Your task to perform on an android device: Open display settings Image 0: 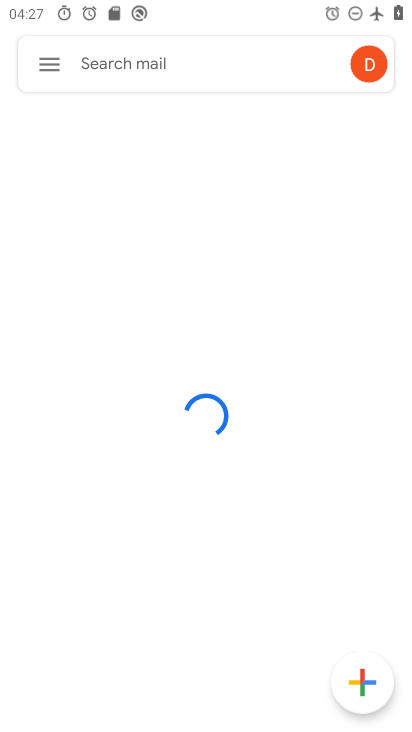
Step 0: press home button
Your task to perform on an android device: Open display settings Image 1: 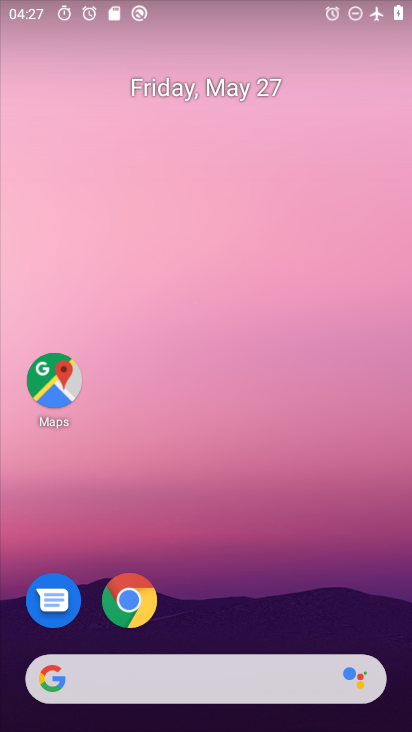
Step 1: drag from (204, 721) to (207, 196)
Your task to perform on an android device: Open display settings Image 2: 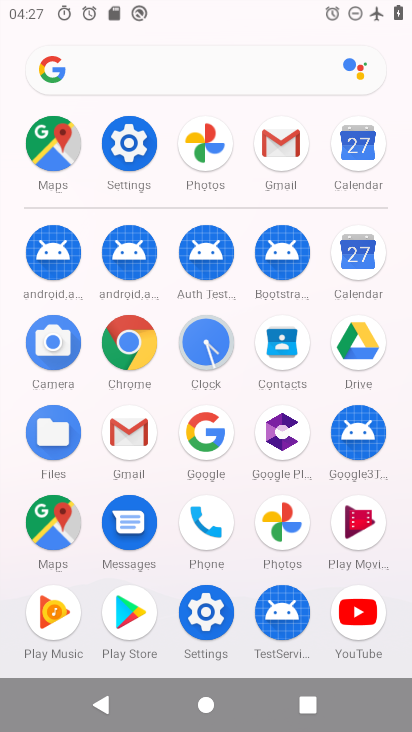
Step 2: click (132, 144)
Your task to perform on an android device: Open display settings Image 3: 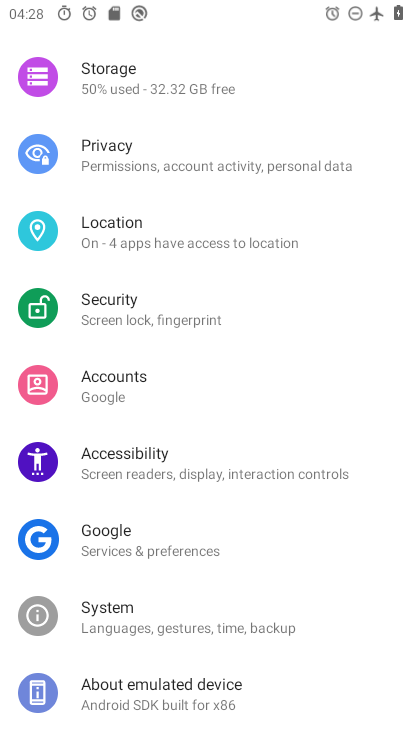
Step 3: drag from (250, 104) to (253, 438)
Your task to perform on an android device: Open display settings Image 4: 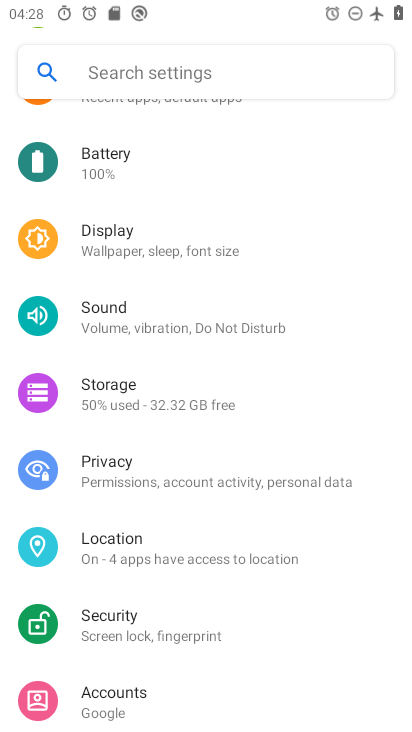
Step 4: click (114, 234)
Your task to perform on an android device: Open display settings Image 5: 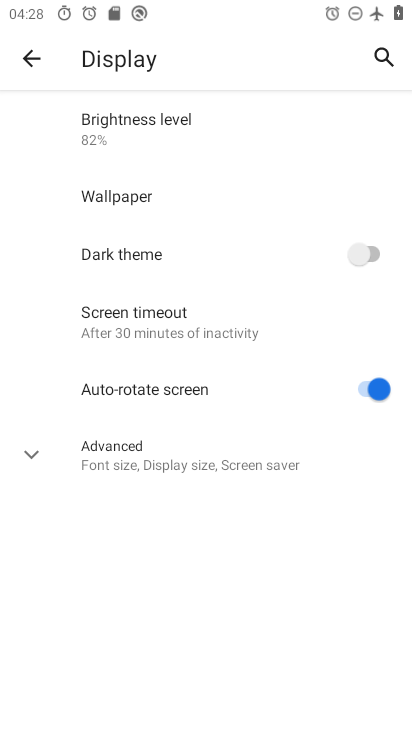
Step 5: task complete